Your task to perform on an android device: turn off improve location accuracy Image 0: 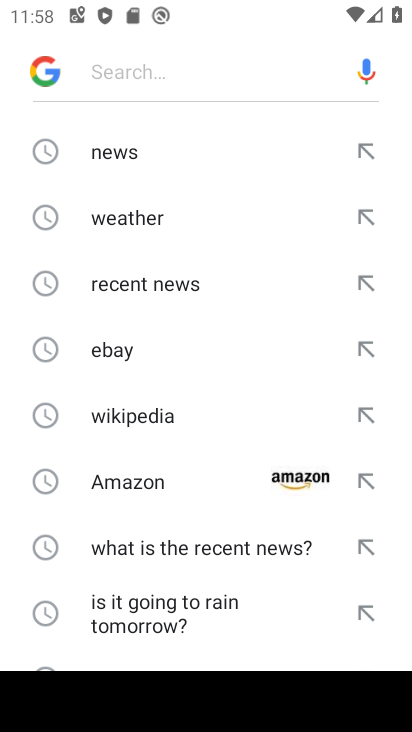
Step 0: press home button
Your task to perform on an android device: turn off improve location accuracy Image 1: 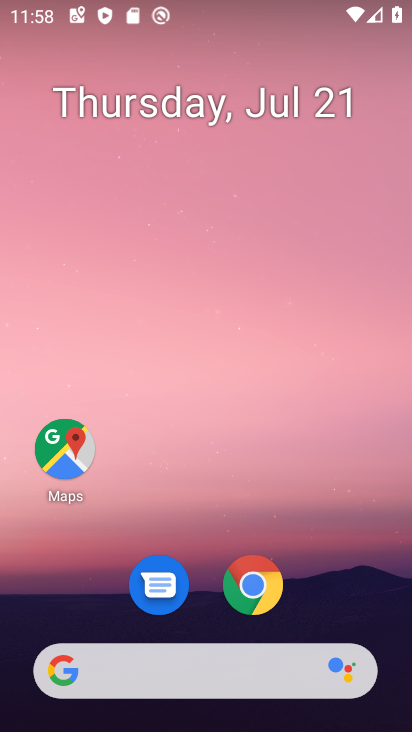
Step 1: drag from (198, 685) to (344, 170)
Your task to perform on an android device: turn off improve location accuracy Image 2: 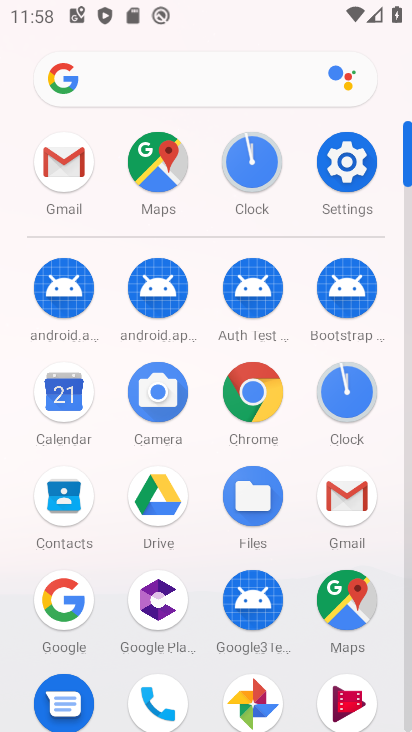
Step 2: click (347, 170)
Your task to perform on an android device: turn off improve location accuracy Image 3: 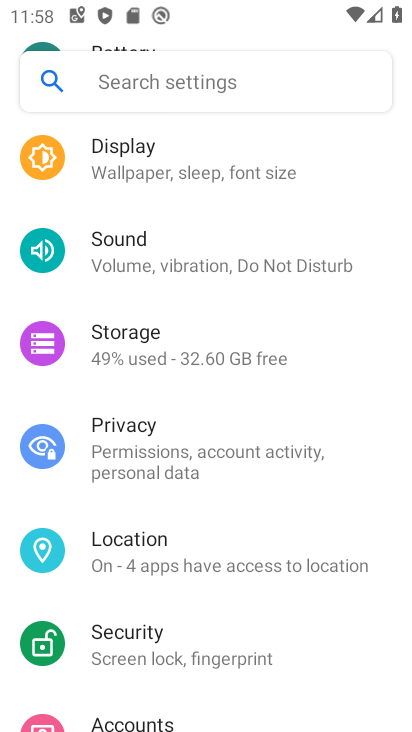
Step 3: click (119, 534)
Your task to perform on an android device: turn off improve location accuracy Image 4: 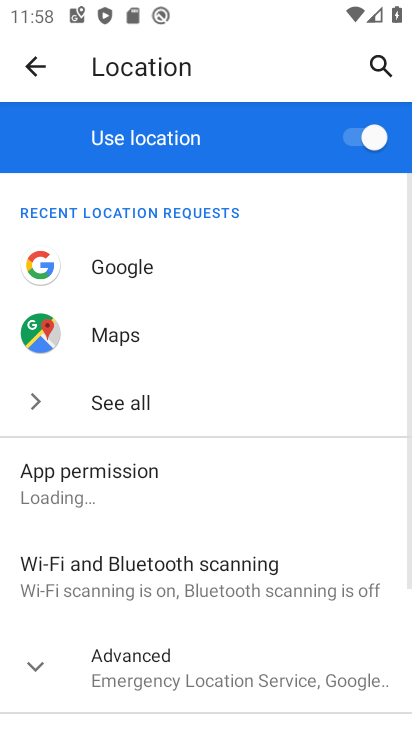
Step 4: drag from (163, 522) to (312, 214)
Your task to perform on an android device: turn off improve location accuracy Image 5: 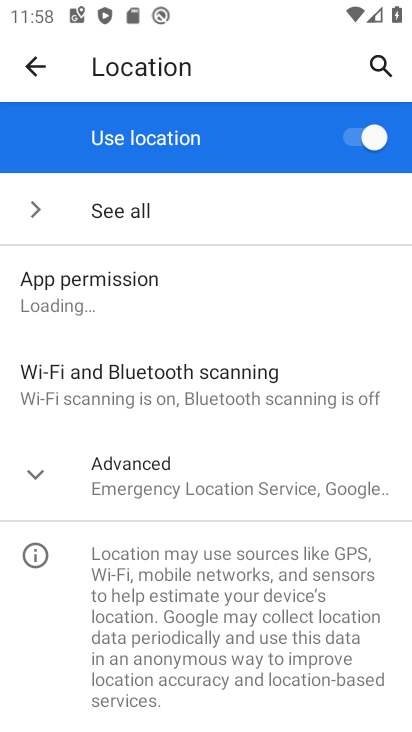
Step 5: click (171, 490)
Your task to perform on an android device: turn off improve location accuracy Image 6: 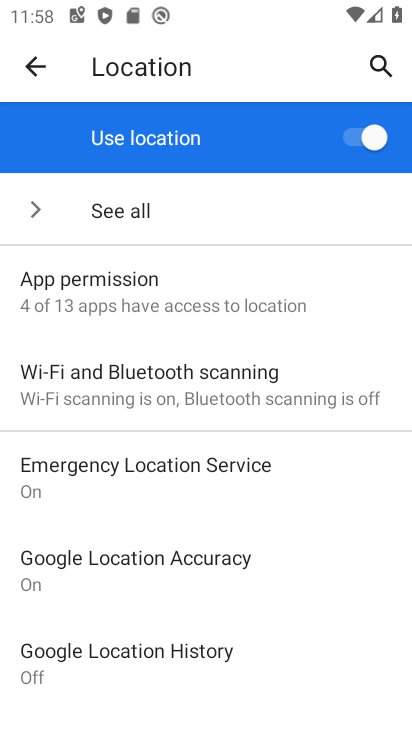
Step 6: click (141, 558)
Your task to perform on an android device: turn off improve location accuracy Image 7: 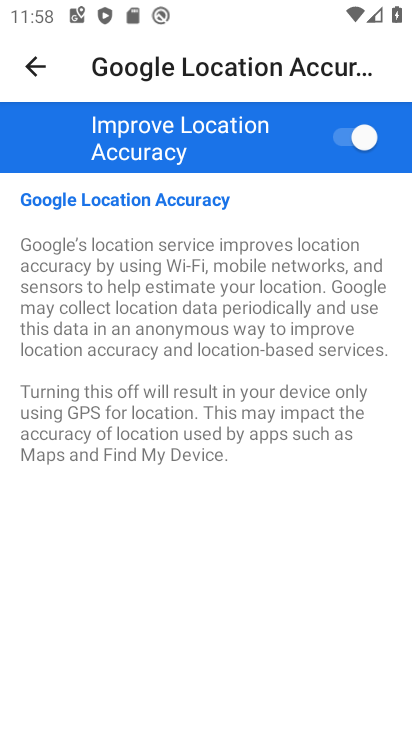
Step 7: click (349, 143)
Your task to perform on an android device: turn off improve location accuracy Image 8: 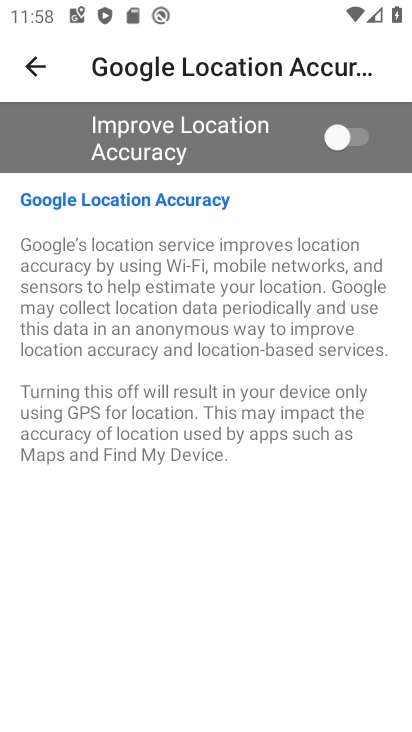
Step 8: task complete